Your task to perform on an android device: toggle pop-ups in chrome Image 0: 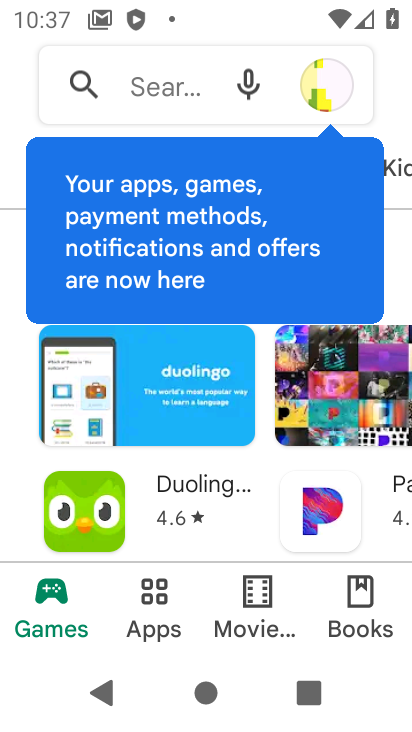
Step 0: press home button
Your task to perform on an android device: toggle pop-ups in chrome Image 1: 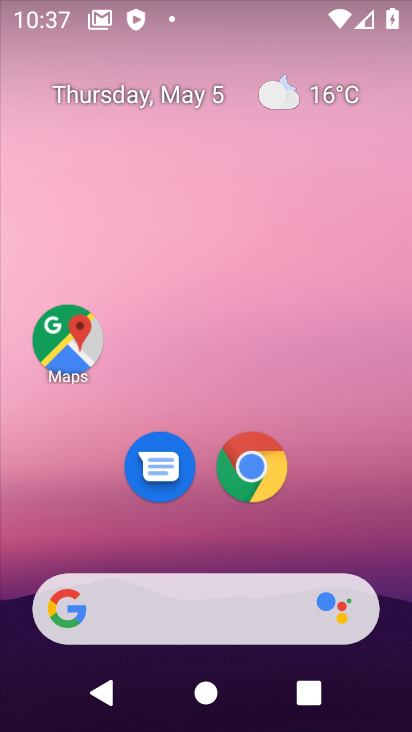
Step 1: click (251, 480)
Your task to perform on an android device: toggle pop-ups in chrome Image 2: 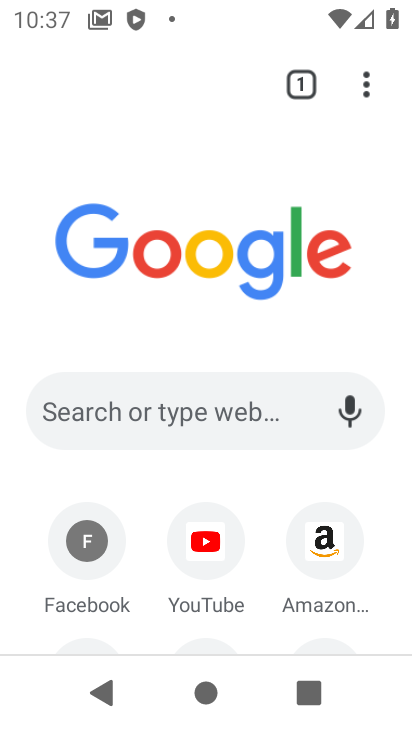
Step 2: click (368, 82)
Your task to perform on an android device: toggle pop-ups in chrome Image 3: 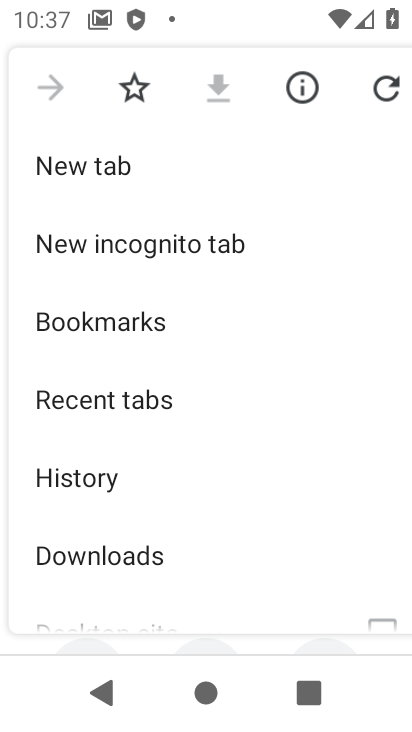
Step 3: drag from (151, 580) to (217, 80)
Your task to perform on an android device: toggle pop-ups in chrome Image 4: 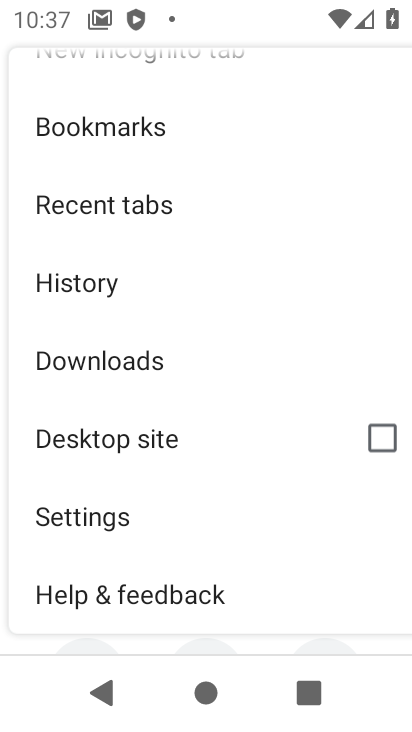
Step 4: click (69, 525)
Your task to perform on an android device: toggle pop-ups in chrome Image 5: 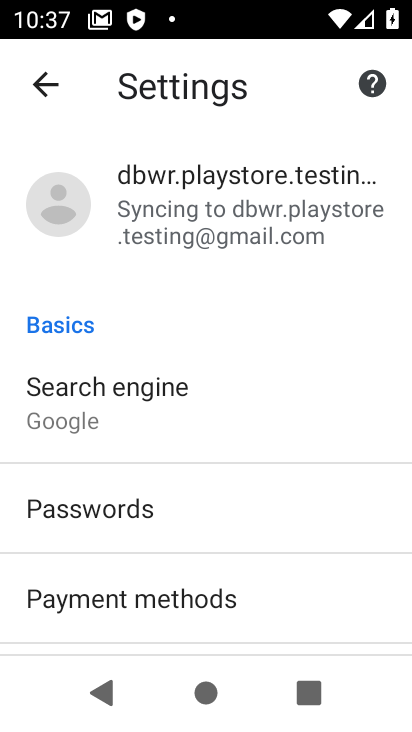
Step 5: drag from (173, 579) to (244, 166)
Your task to perform on an android device: toggle pop-ups in chrome Image 6: 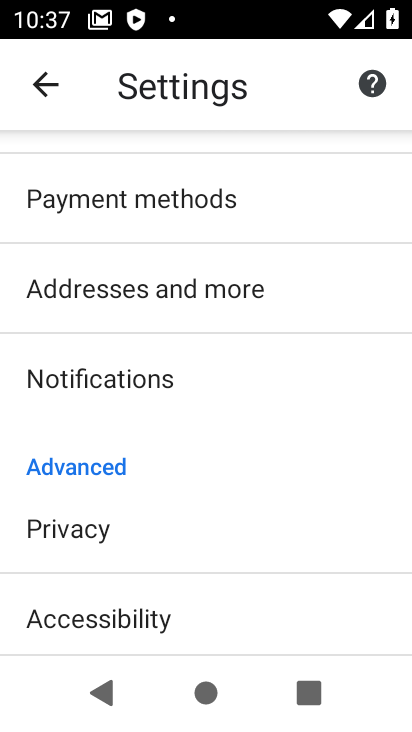
Step 6: drag from (160, 565) to (199, 164)
Your task to perform on an android device: toggle pop-ups in chrome Image 7: 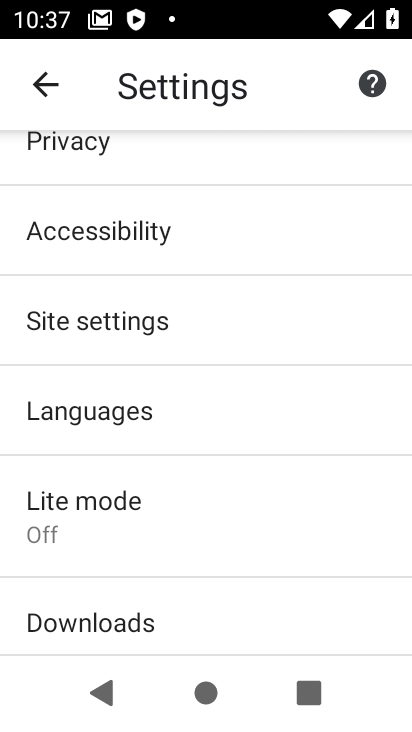
Step 7: click (163, 327)
Your task to perform on an android device: toggle pop-ups in chrome Image 8: 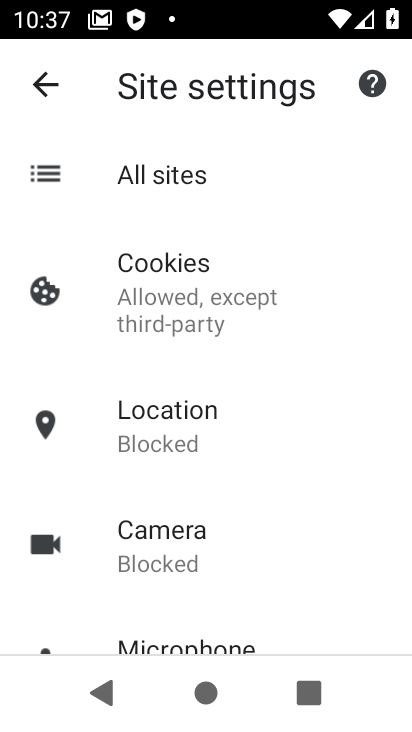
Step 8: drag from (220, 576) to (209, 156)
Your task to perform on an android device: toggle pop-ups in chrome Image 9: 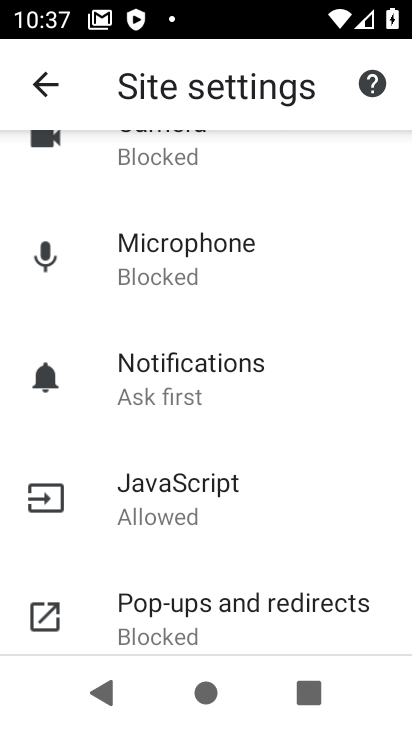
Step 9: click (222, 620)
Your task to perform on an android device: toggle pop-ups in chrome Image 10: 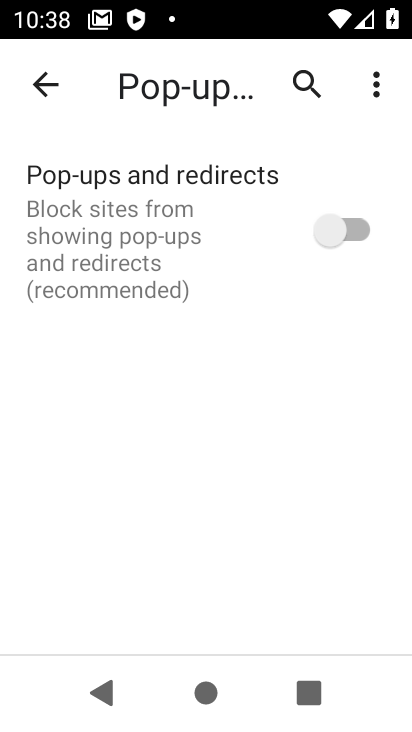
Step 10: click (345, 233)
Your task to perform on an android device: toggle pop-ups in chrome Image 11: 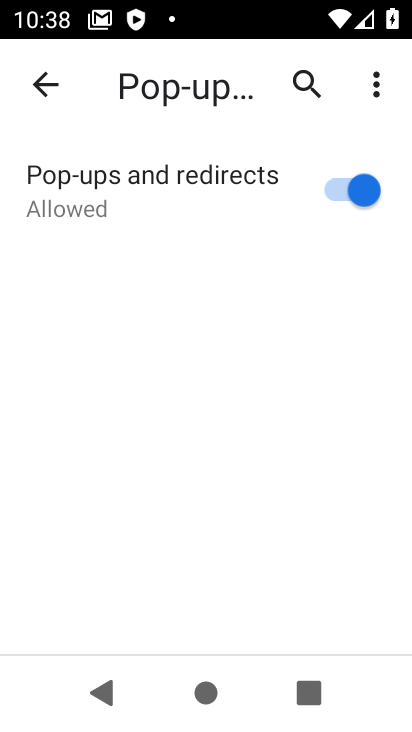
Step 11: task complete